Your task to perform on an android device: empty trash in the gmail app Image 0: 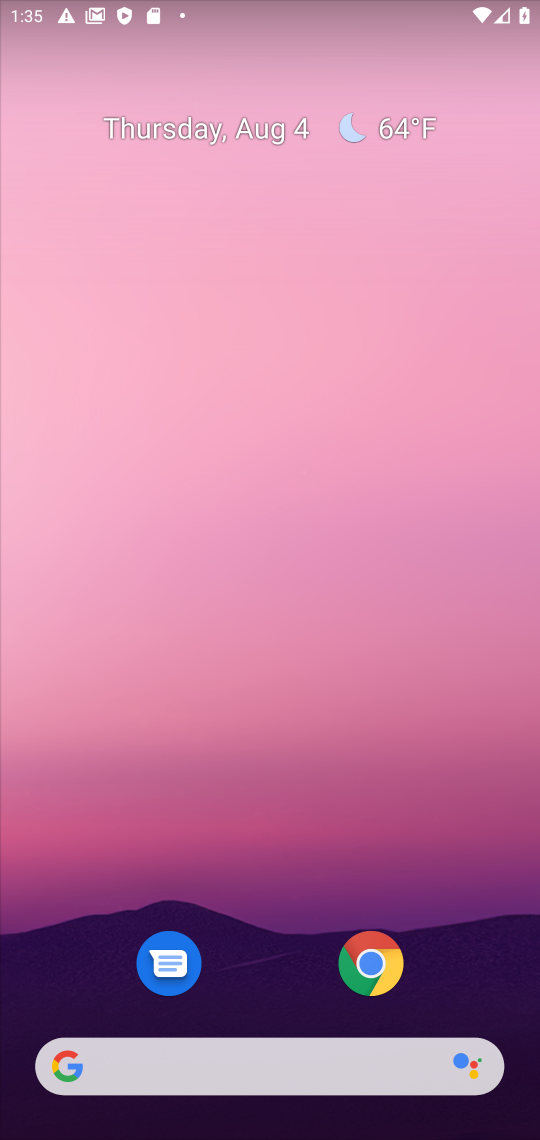
Step 0: drag from (275, 1017) to (245, 261)
Your task to perform on an android device: empty trash in the gmail app Image 1: 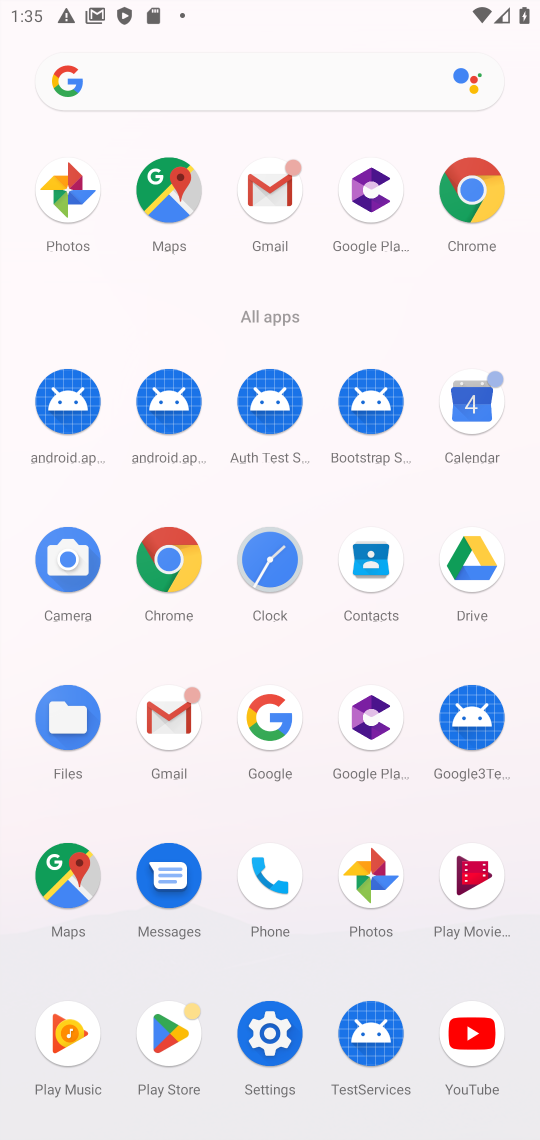
Step 1: click (182, 750)
Your task to perform on an android device: empty trash in the gmail app Image 2: 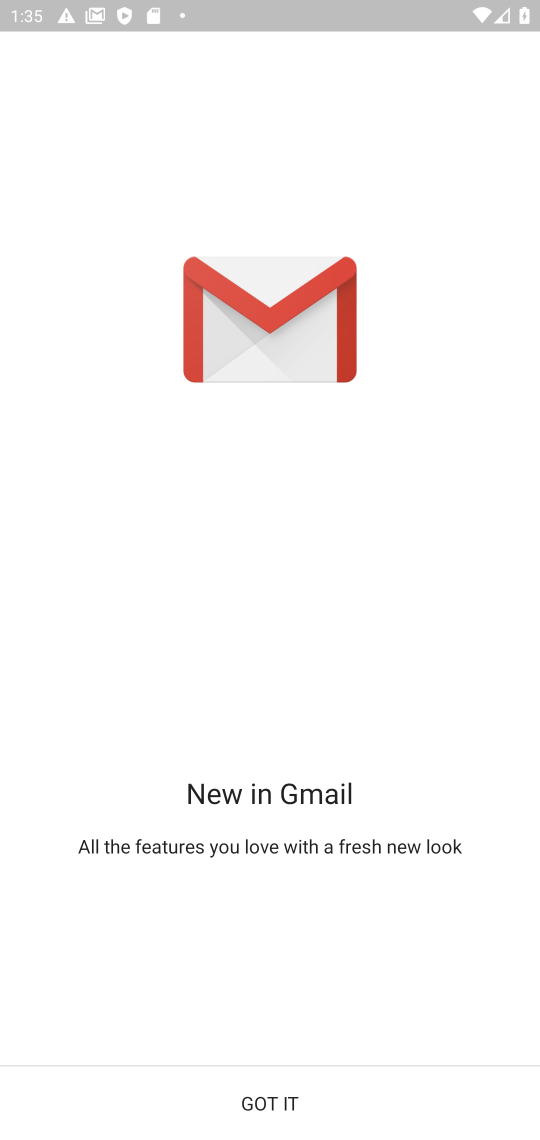
Step 2: click (275, 1110)
Your task to perform on an android device: empty trash in the gmail app Image 3: 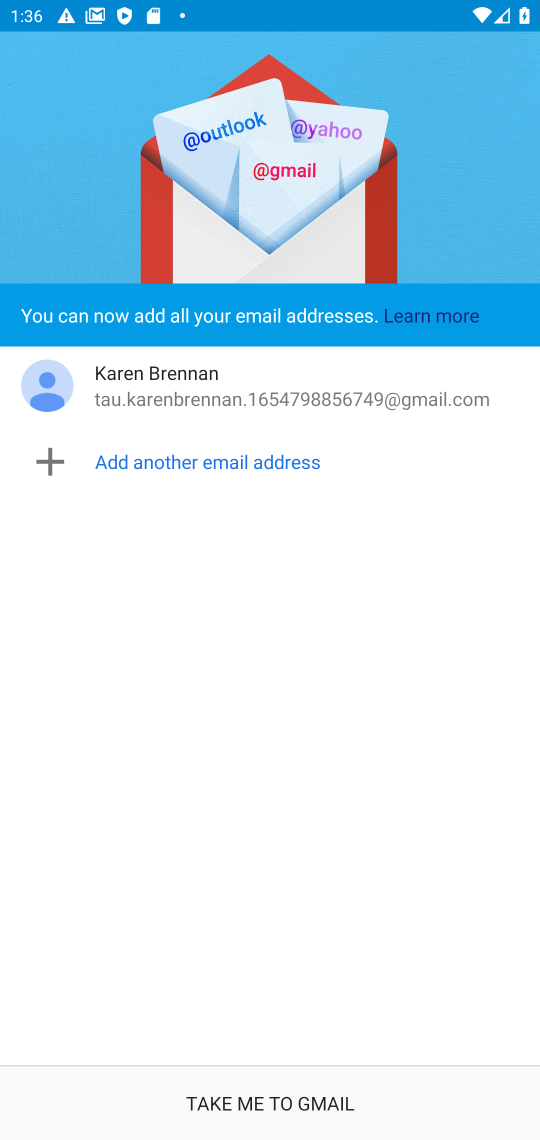
Step 3: click (251, 1090)
Your task to perform on an android device: empty trash in the gmail app Image 4: 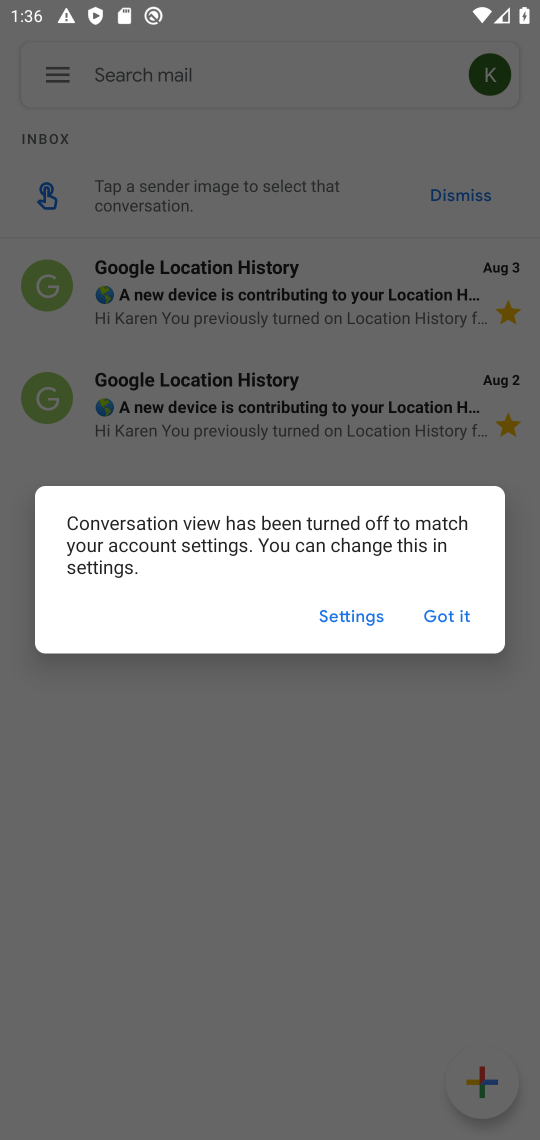
Step 4: click (451, 622)
Your task to perform on an android device: empty trash in the gmail app Image 5: 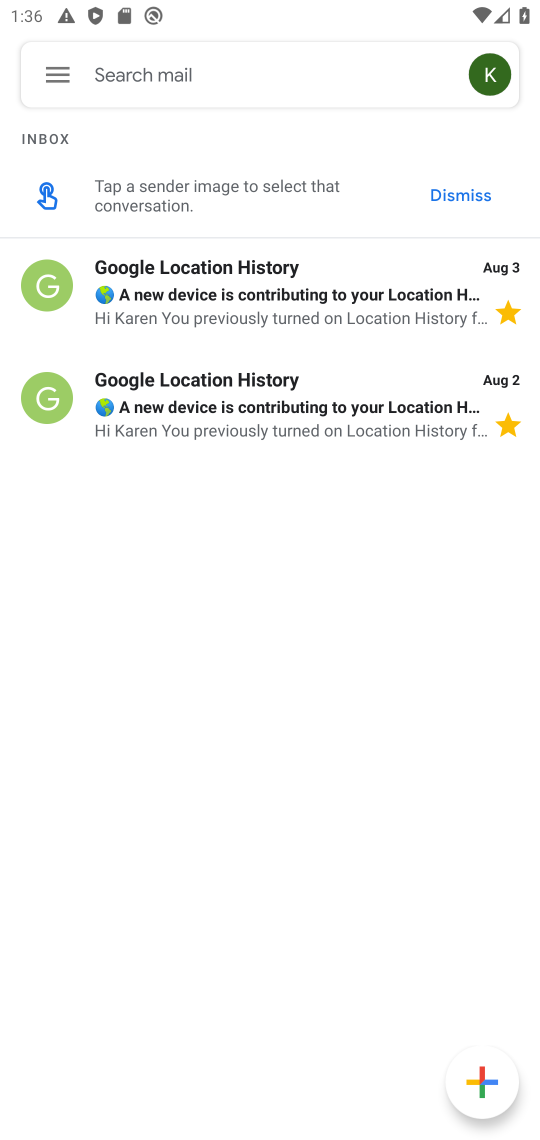
Step 5: click (61, 78)
Your task to perform on an android device: empty trash in the gmail app Image 6: 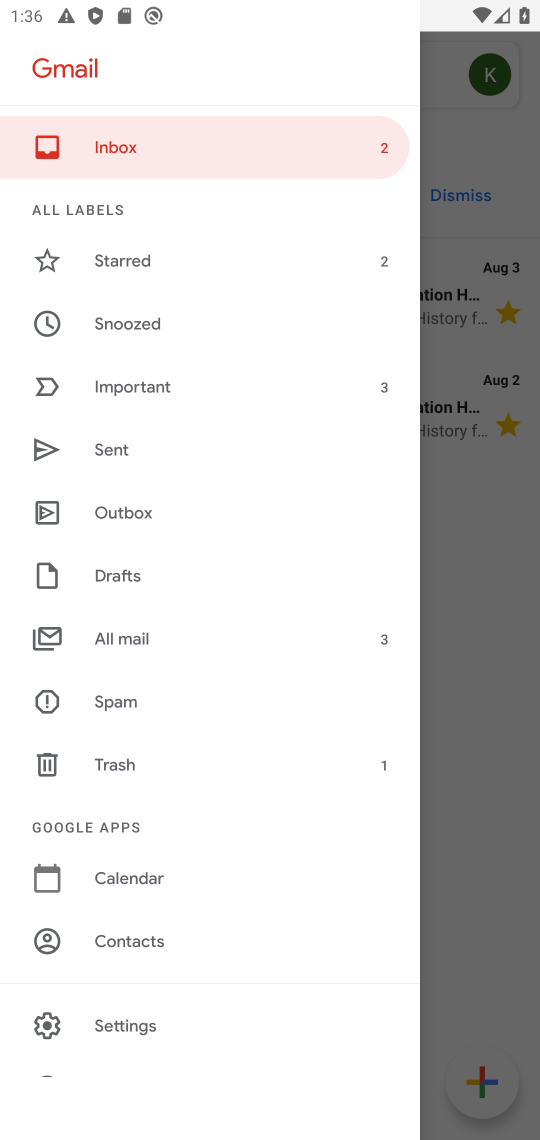
Step 6: click (142, 770)
Your task to perform on an android device: empty trash in the gmail app Image 7: 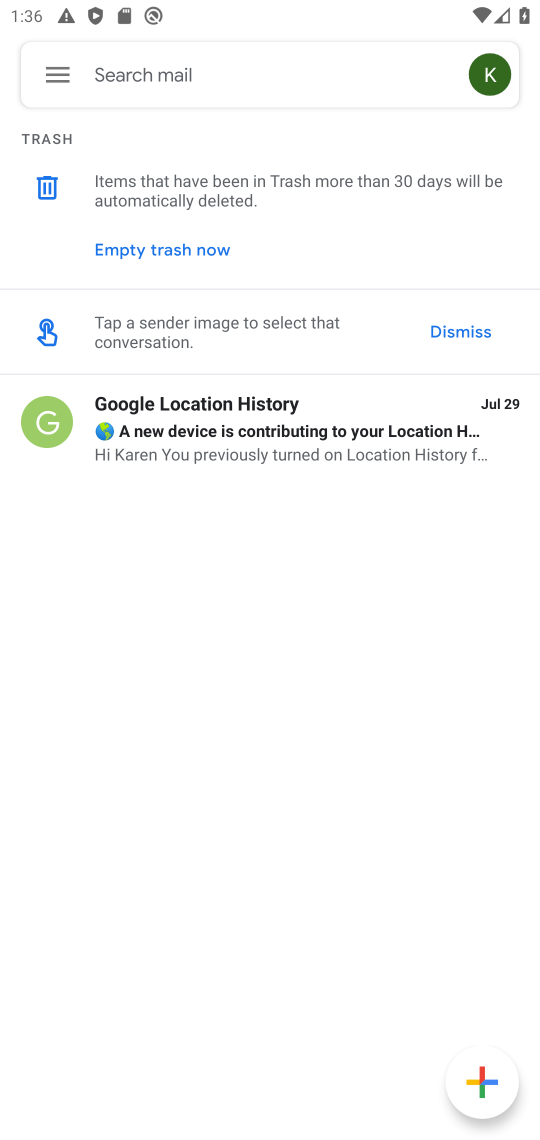
Step 7: click (185, 248)
Your task to perform on an android device: empty trash in the gmail app Image 8: 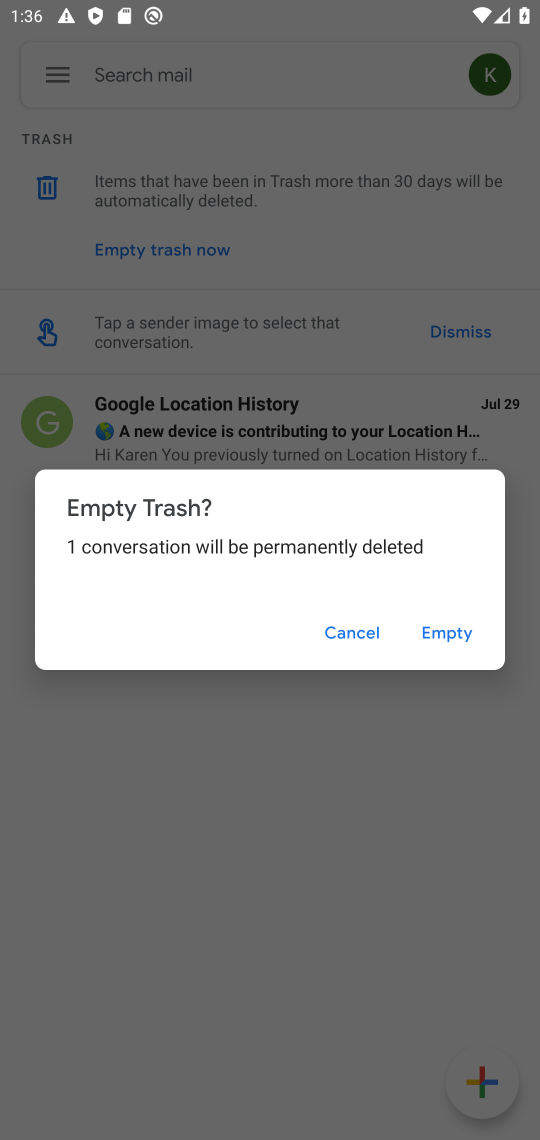
Step 8: click (420, 637)
Your task to perform on an android device: empty trash in the gmail app Image 9: 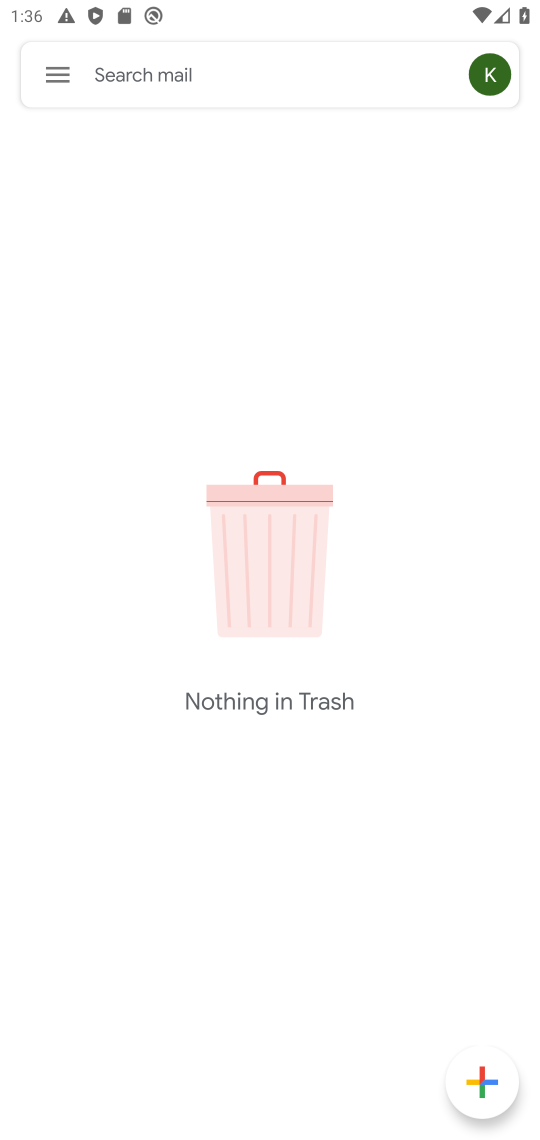
Step 9: task complete